Your task to perform on an android device: allow cookies in the chrome app Image 0: 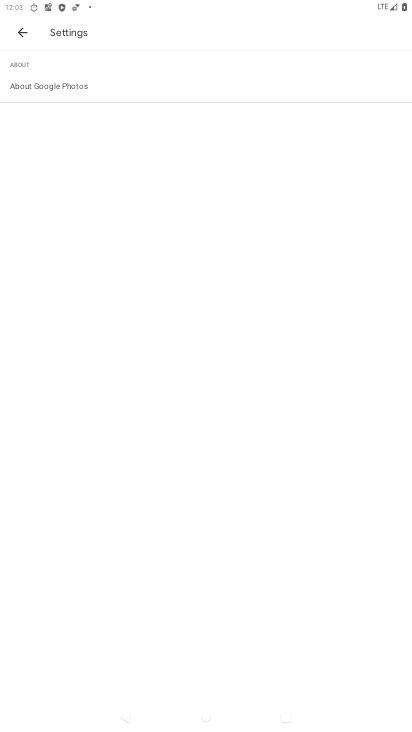
Step 0: press home button
Your task to perform on an android device: allow cookies in the chrome app Image 1: 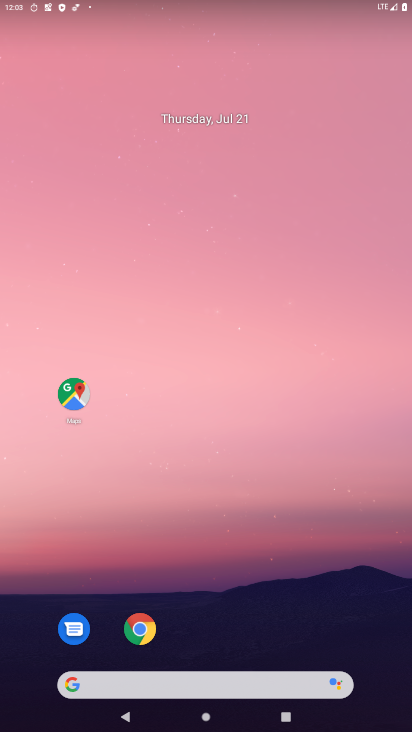
Step 1: drag from (270, 678) to (262, 122)
Your task to perform on an android device: allow cookies in the chrome app Image 2: 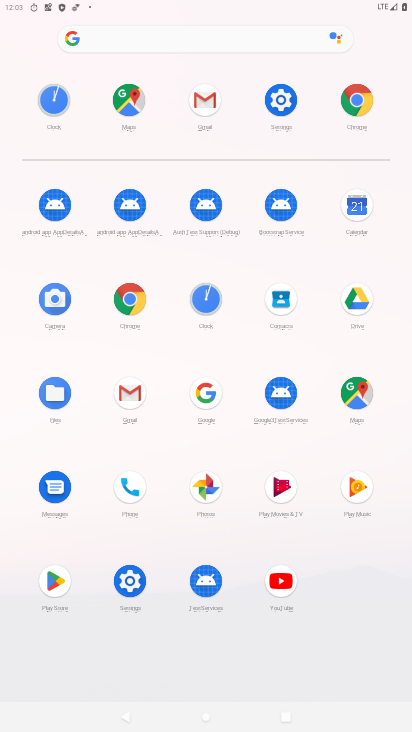
Step 2: click (134, 296)
Your task to perform on an android device: allow cookies in the chrome app Image 3: 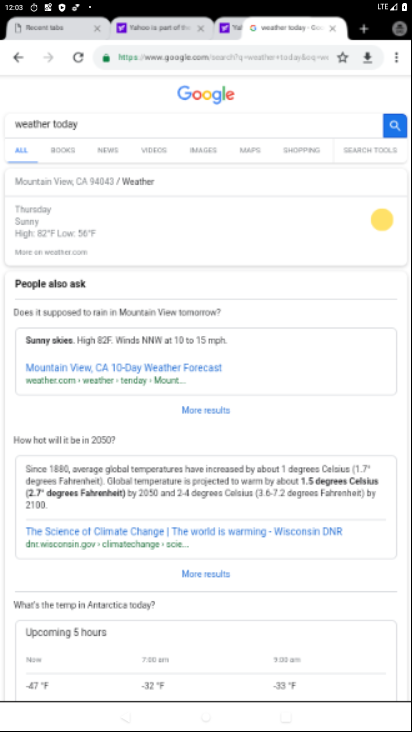
Step 3: drag from (400, 52) to (286, 350)
Your task to perform on an android device: allow cookies in the chrome app Image 4: 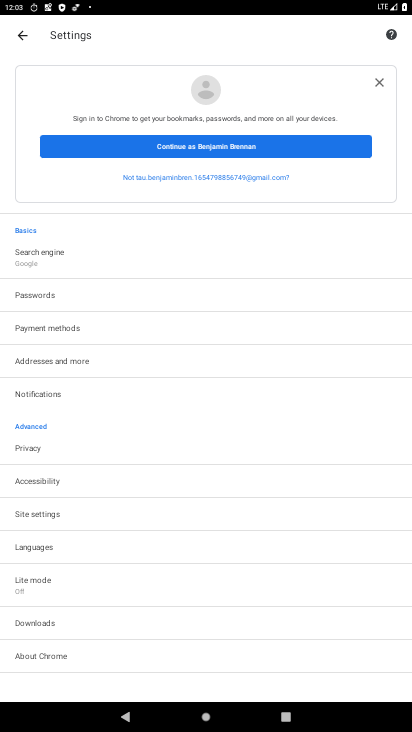
Step 4: click (40, 511)
Your task to perform on an android device: allow cookies in the chrome app Image 5: 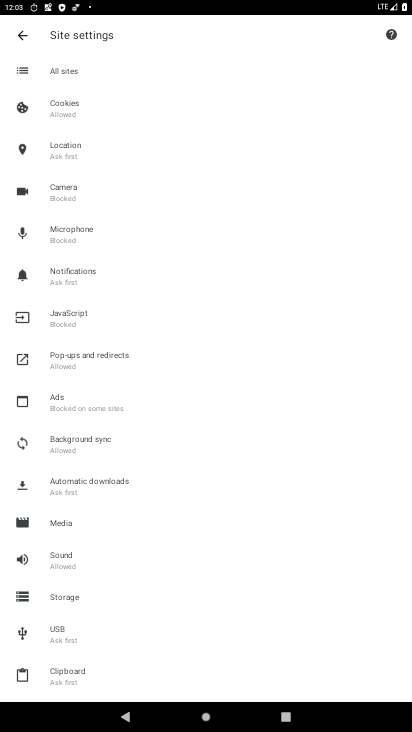
Step 5: click (83, 112)
Your task to perform on an android device: allow cookies in the chrome app Image 6: 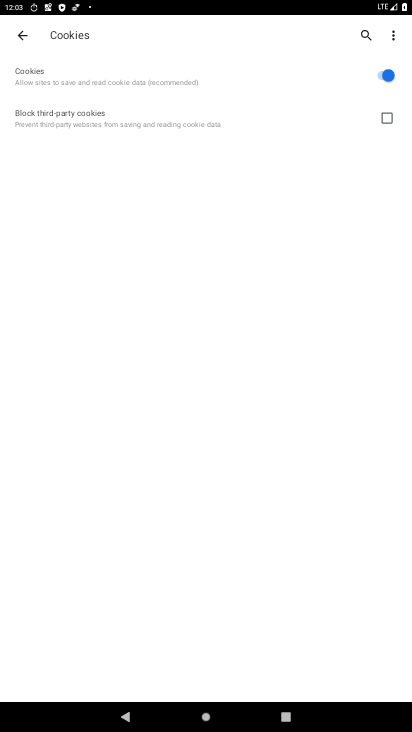
Step 6: task complete